Your task to perform on an android device: Open Maps and search for coffee Image 0: 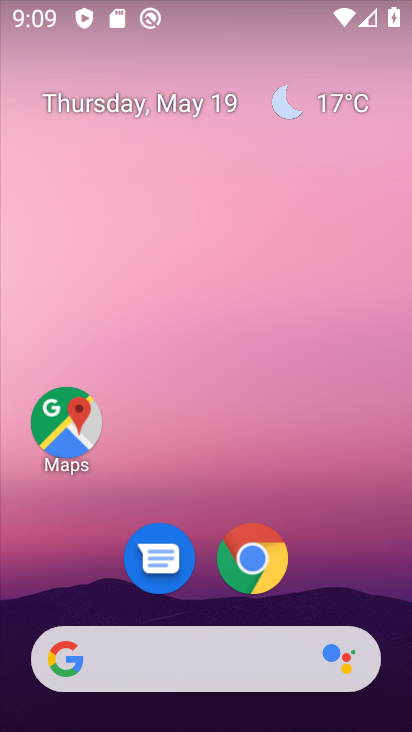
Step 0: drag from (244, 591) to (244, 217)
Your task to perform on an android device: Open Maps and search for coffee Image 1: 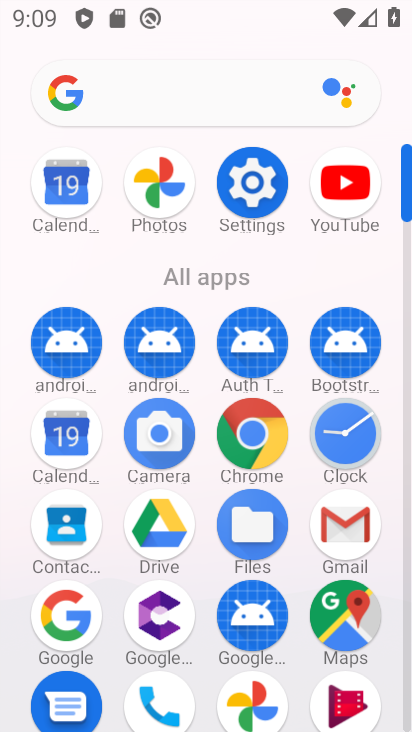
Step 1: click (343, 624)
Your task to perform on an android device: Open Maps and search for coffee Image 2: 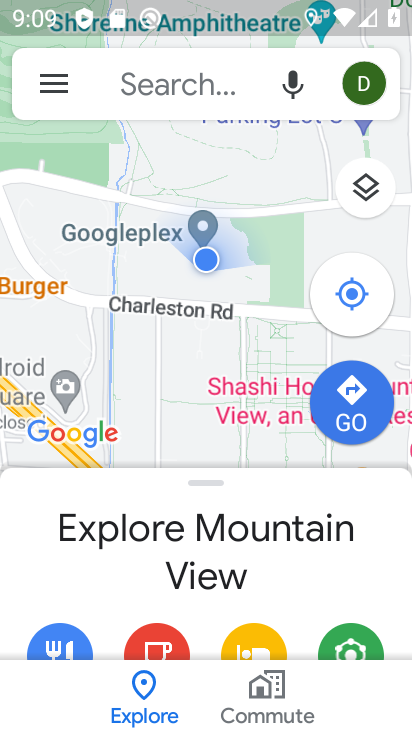
Step 2: click (128, 91)
Your task to perform on an android device: Open Maps and search for coffee Image 3: 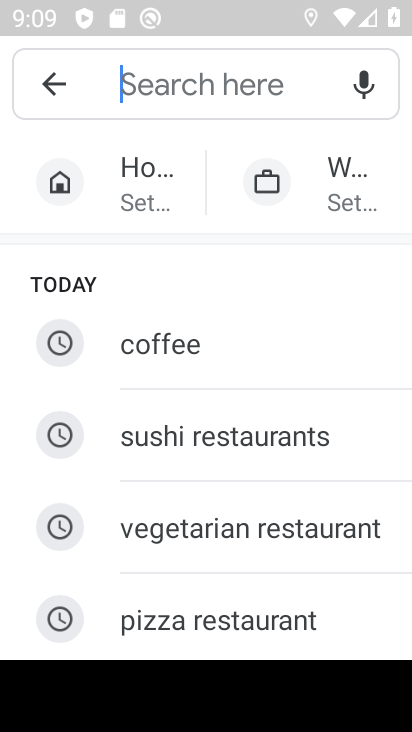
Step 3: type "coffee"
Your task to perform on an android device: Open Maps and search for coffee Image 4: 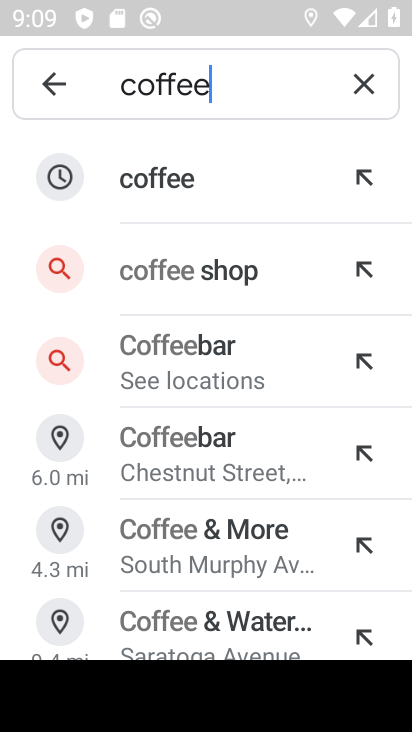
Step 4: click (152, 176)
Your task to perform on an android device: Open Maps and search for coffee Image 5: 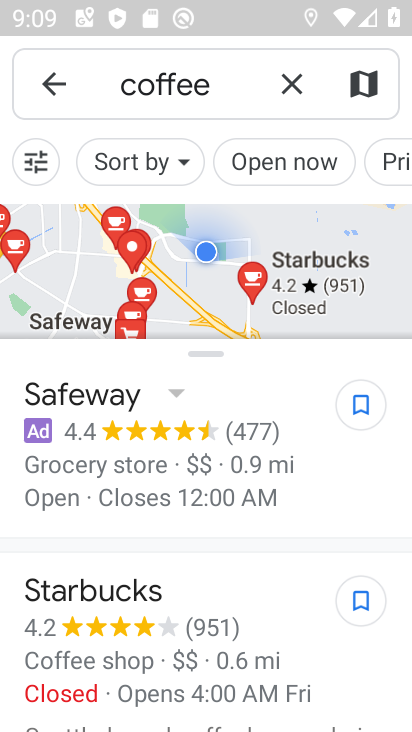
Step 5: task complete